Your task to perform on an android device: see creations saved in the google photos Image 0: 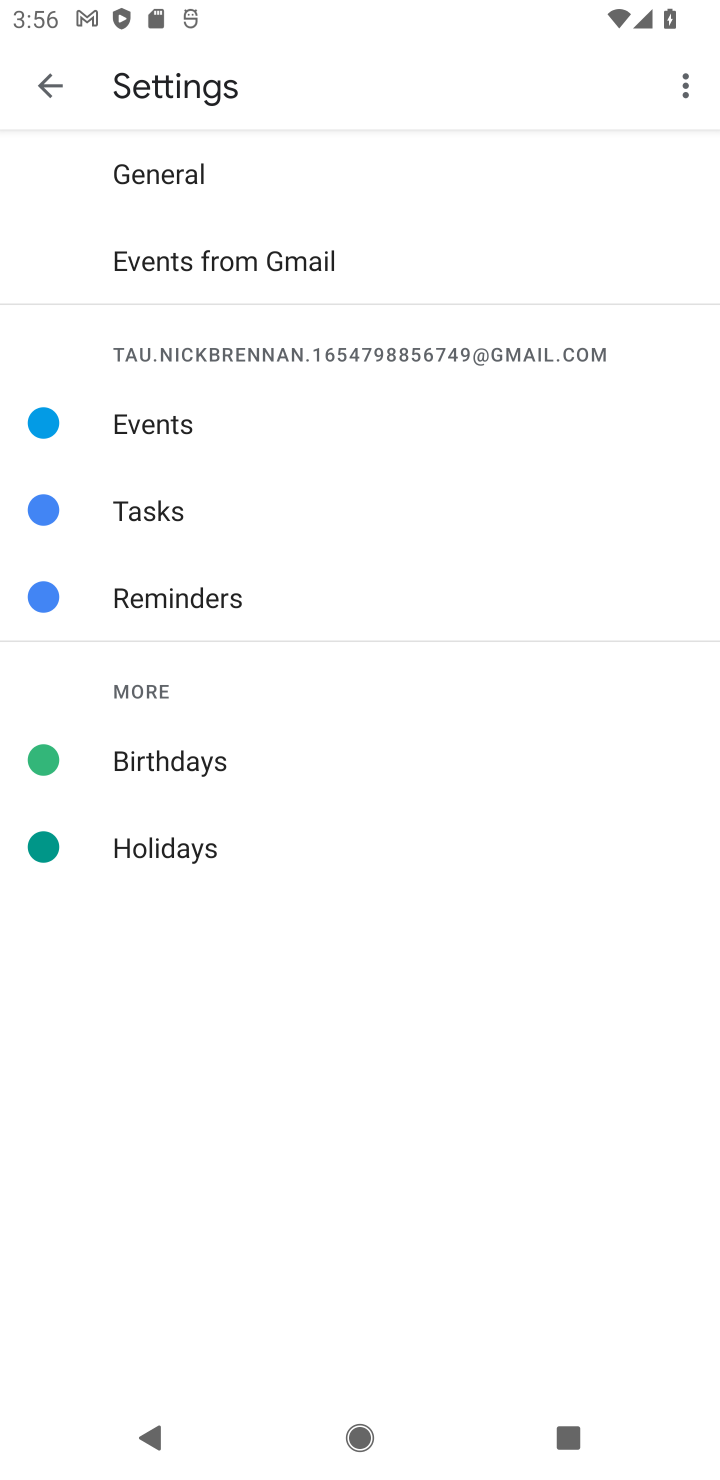
Step 0: drag from (183, 1126) to (401, 602)
Your task to perform on an android device: see creations saved in the google photos Image 1: 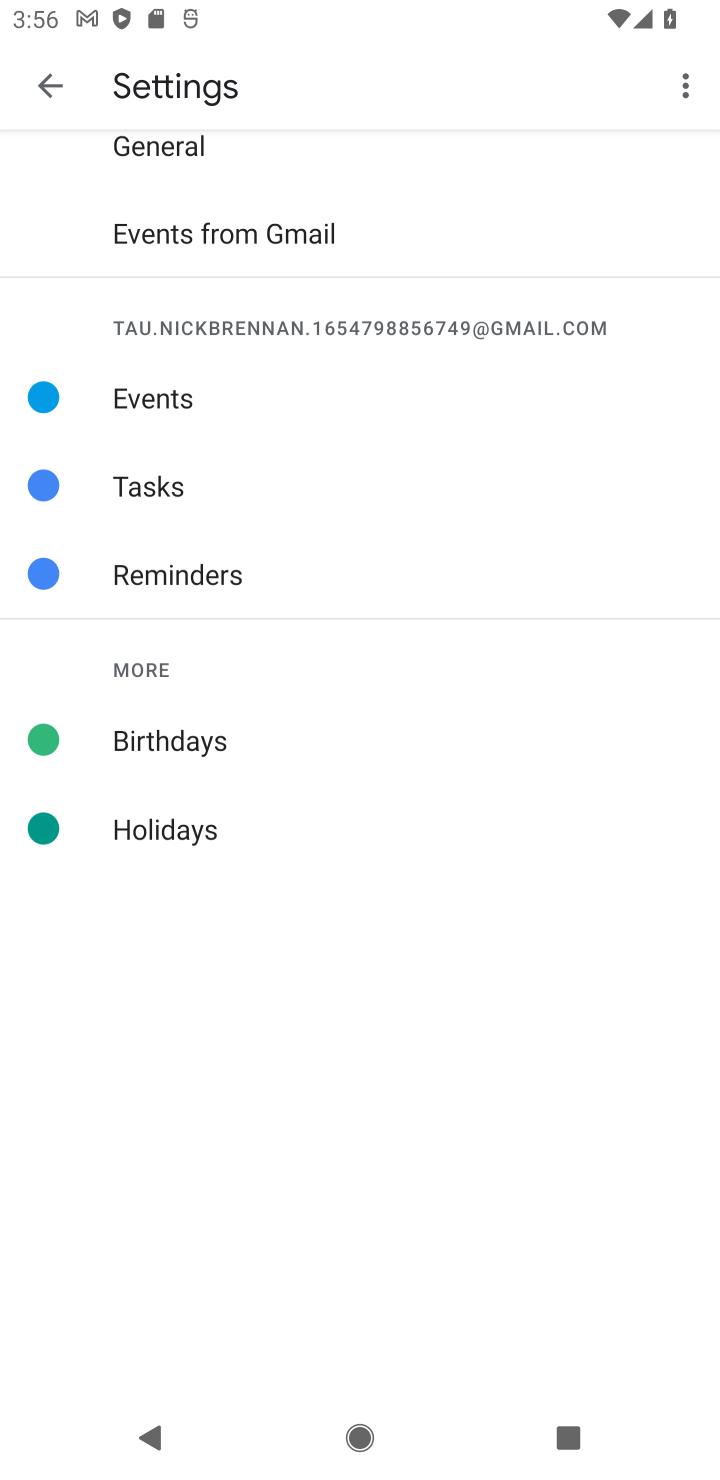
Step 1: drag from (481, 562) to (585, 1341)
Your task to perform on an android device: see creations saved in the google photos Image 2: 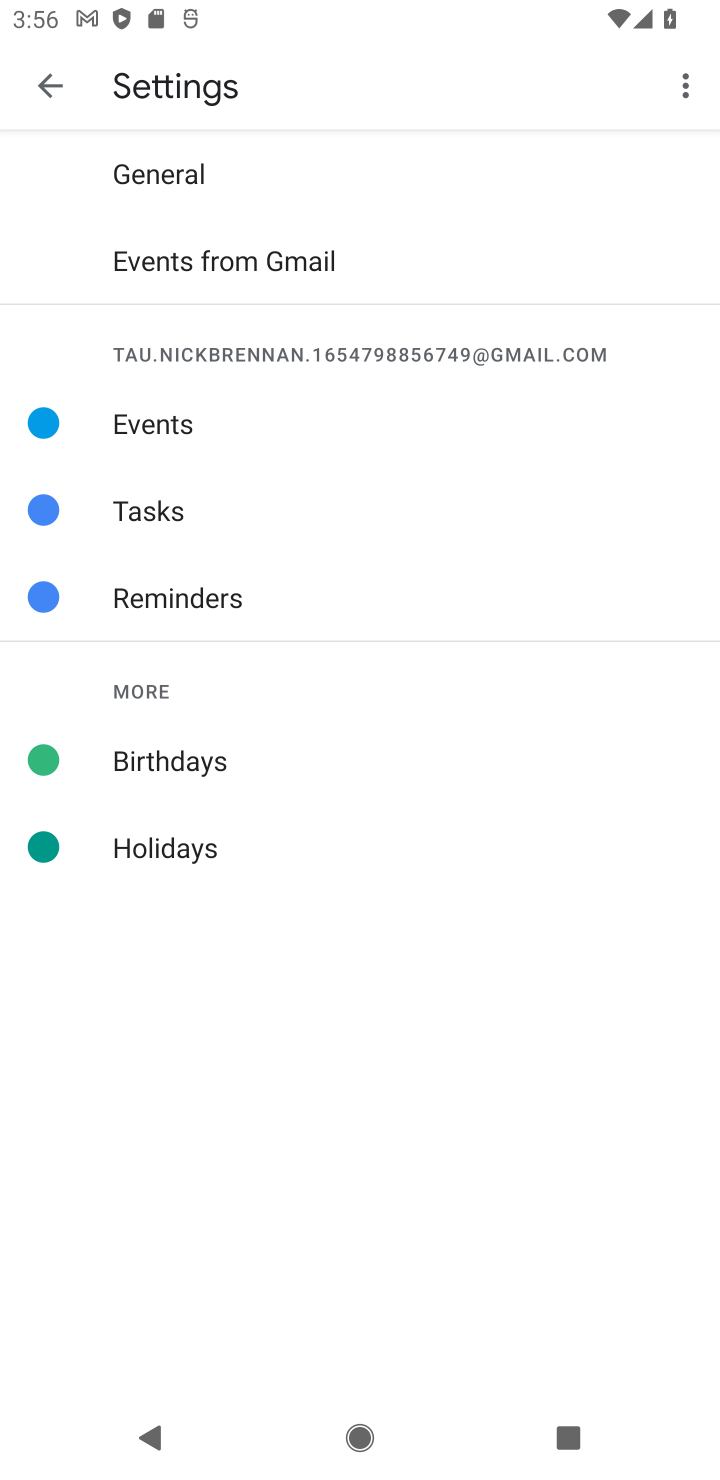
Step 2: press home button
Your task to perform on an android device: see creations saved in the google photos Image 3: 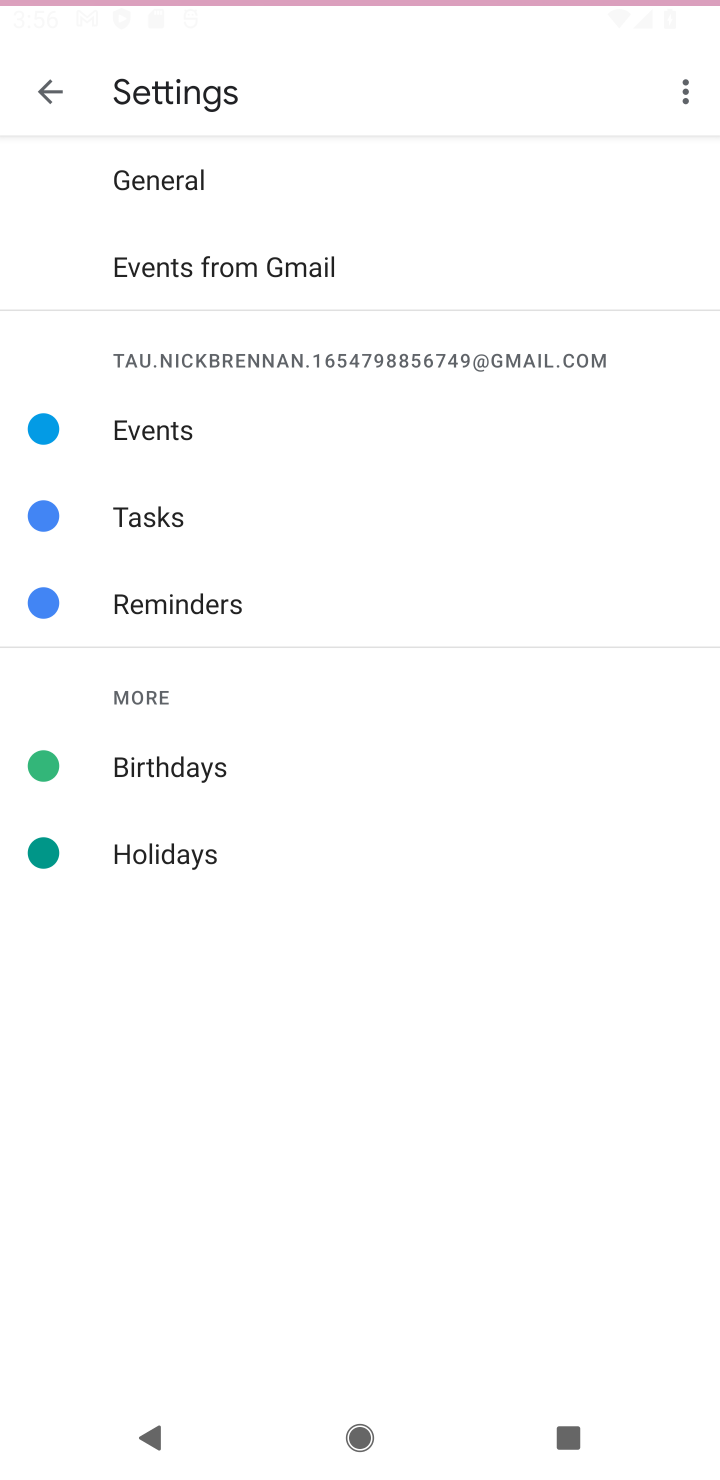
Step 3: drag from (289, 1056) to (532, 115)
Your task to perform on an android device: see creations saved in the google photos Image 4: 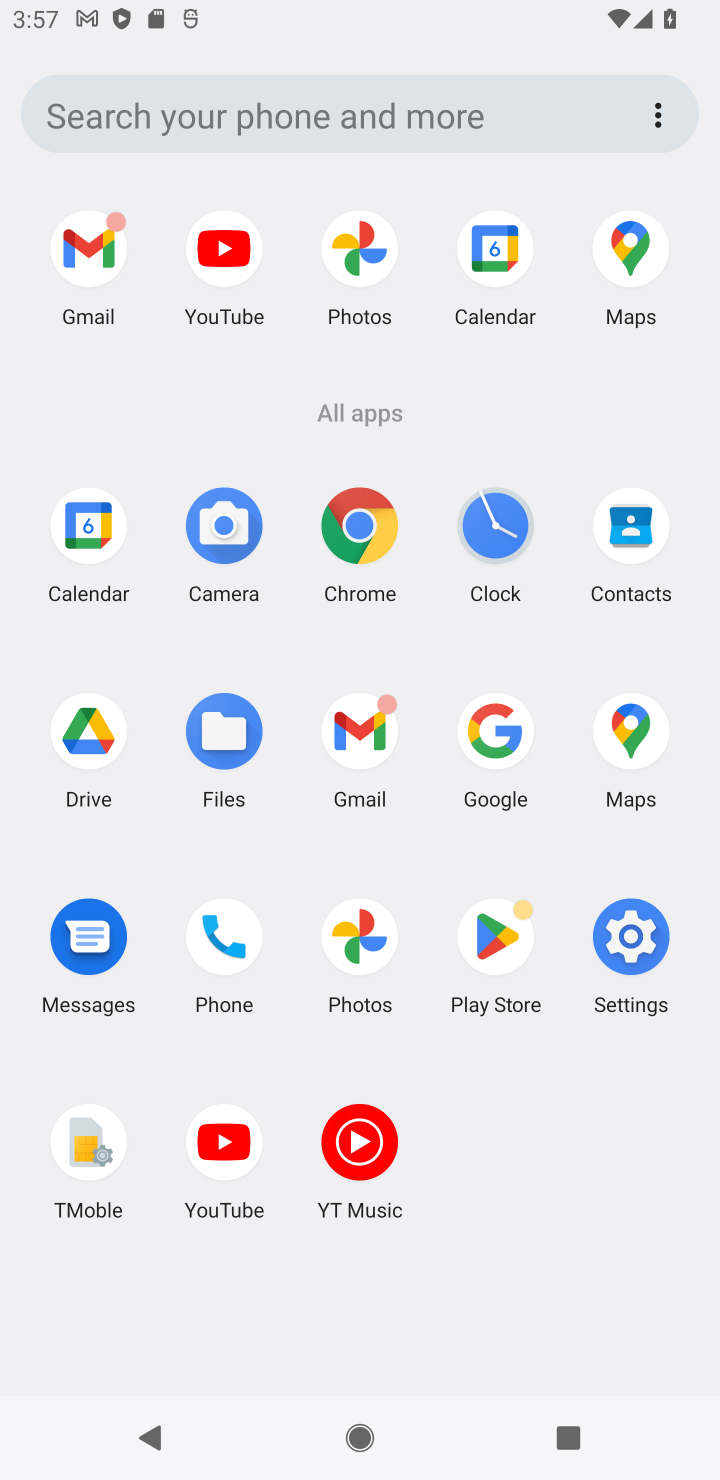
Step 4: click (360, 949)
Your task to perform on an android device: see creations saved in the google photos Image 5: 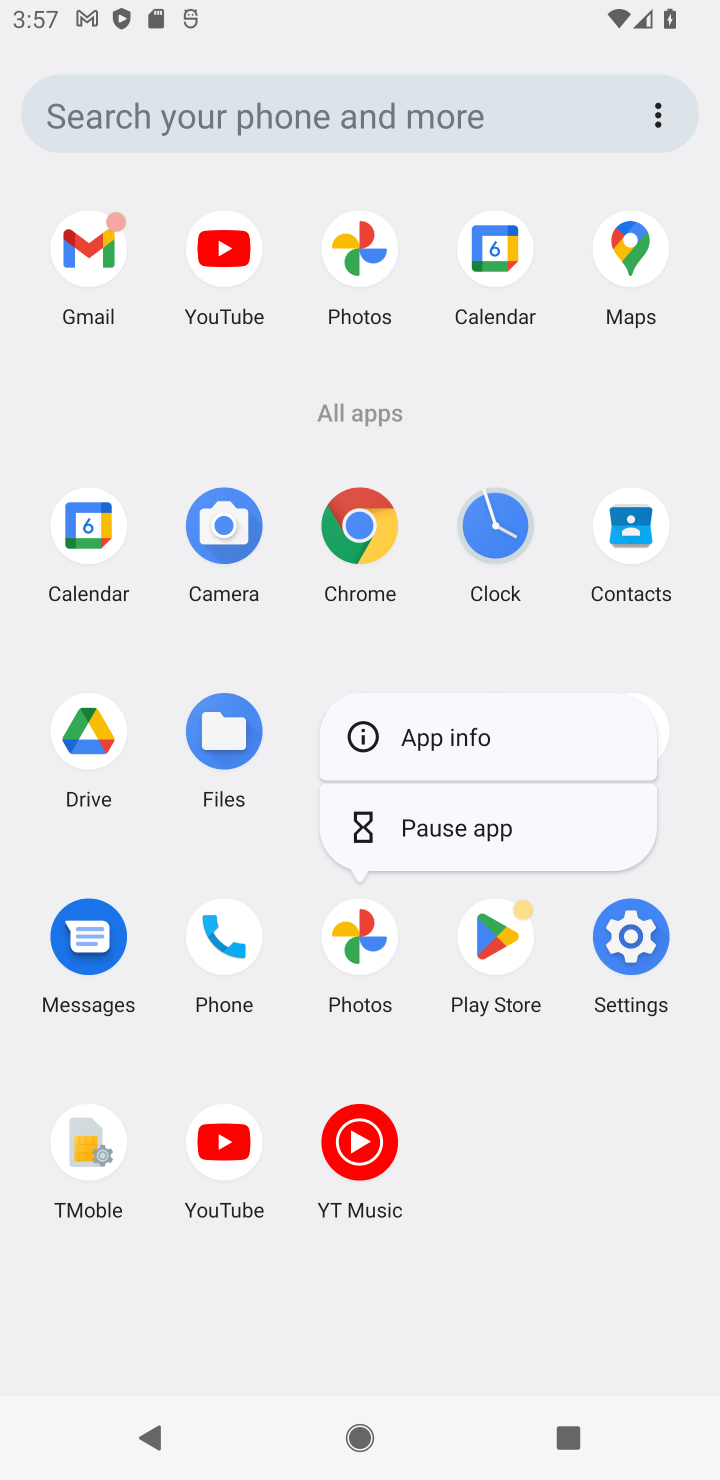
Step 5: click (429, 754)
Your task to perform on an android device: see creations saved in the google photos Image 6: 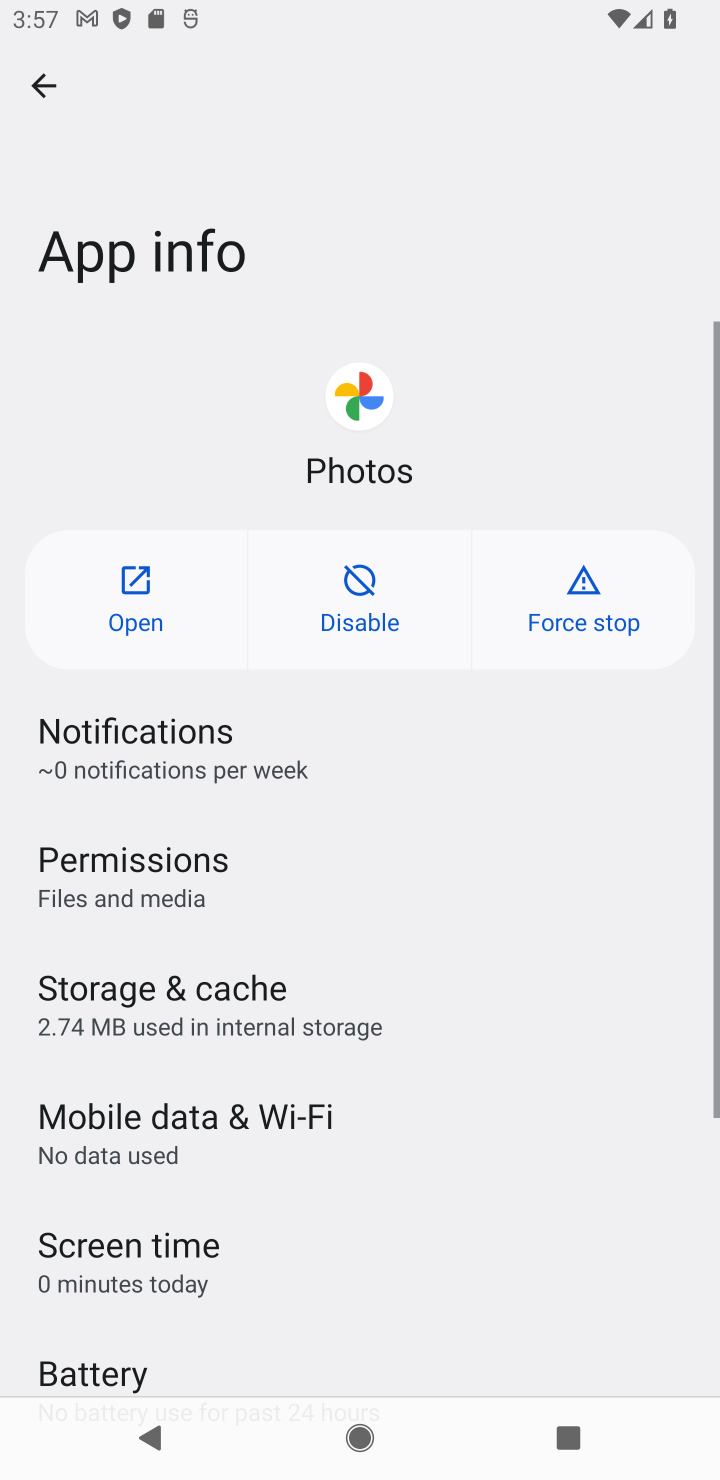
Step 6: click (126, 597)
Your task to perform on an android device: see creations saved in the google photos Image 7: 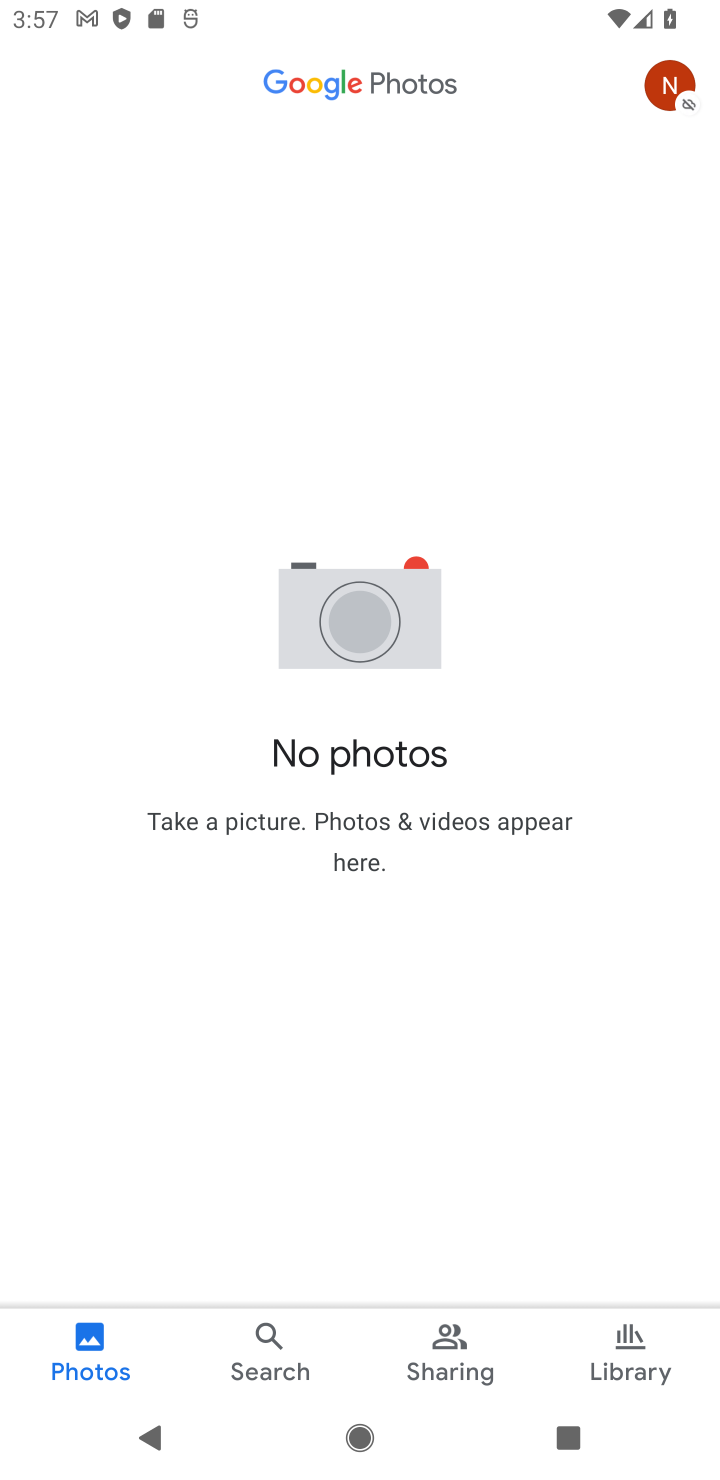
Step 7: click (435, 682)
Your task to perform on an android device: see creations saved in the google photos Image 8: 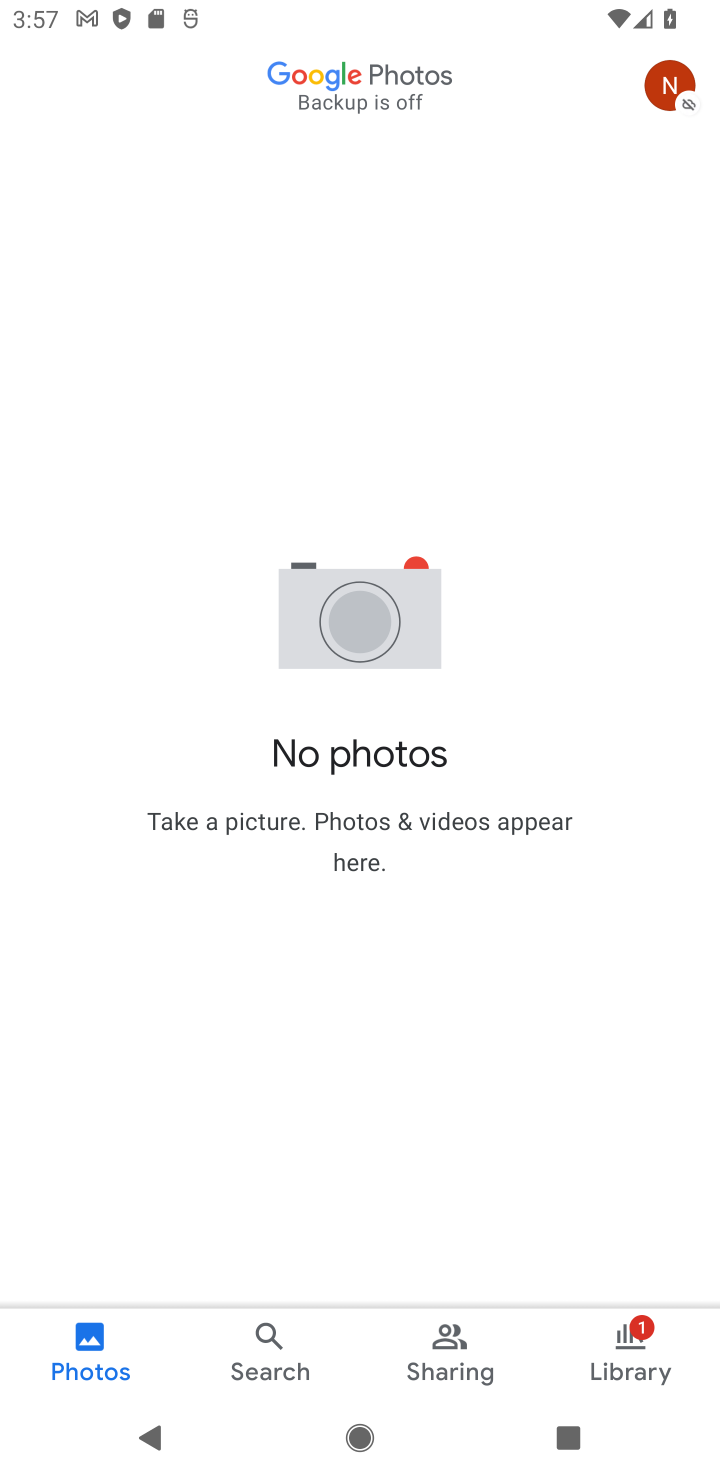
Step 8: drag from (448, 1191) to (577, 737)
Your task to perform on an android device: see creations saved in the google photos Image 9: 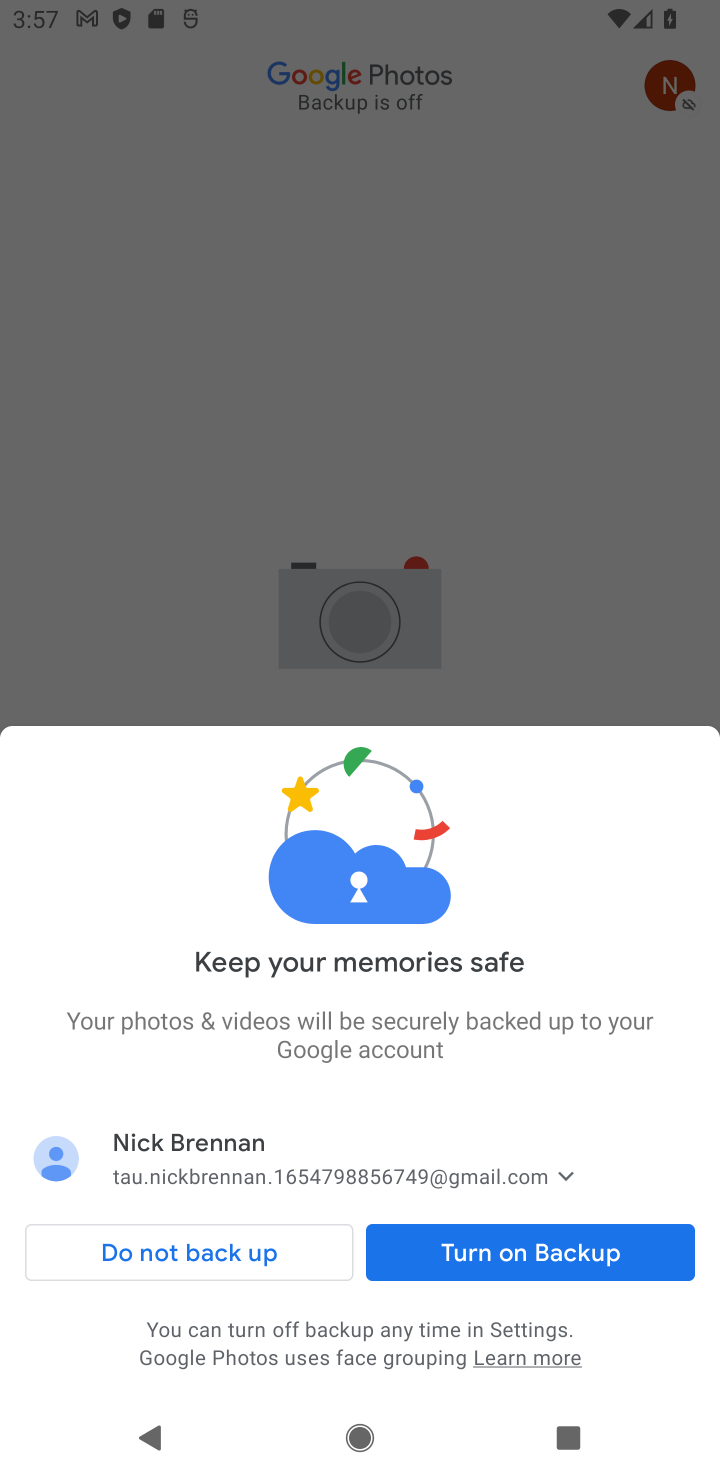
Step 9: drag from (427, 807) to (455, 682)
Your task to perform on an android device: see creations saved in the google photos Image 10: 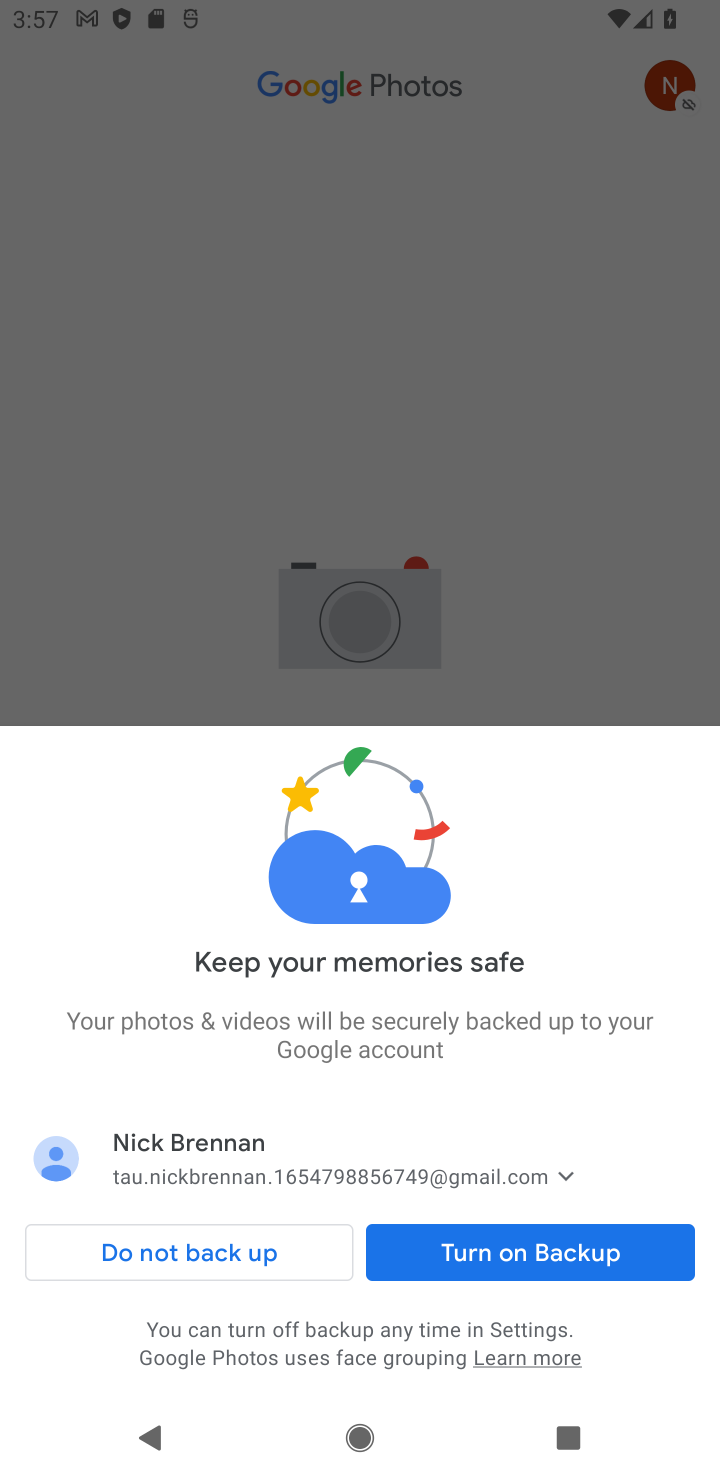
Step 10: click (534, 1252)
Your task to perform on an android device: see creations saved in the google photos Image 11: 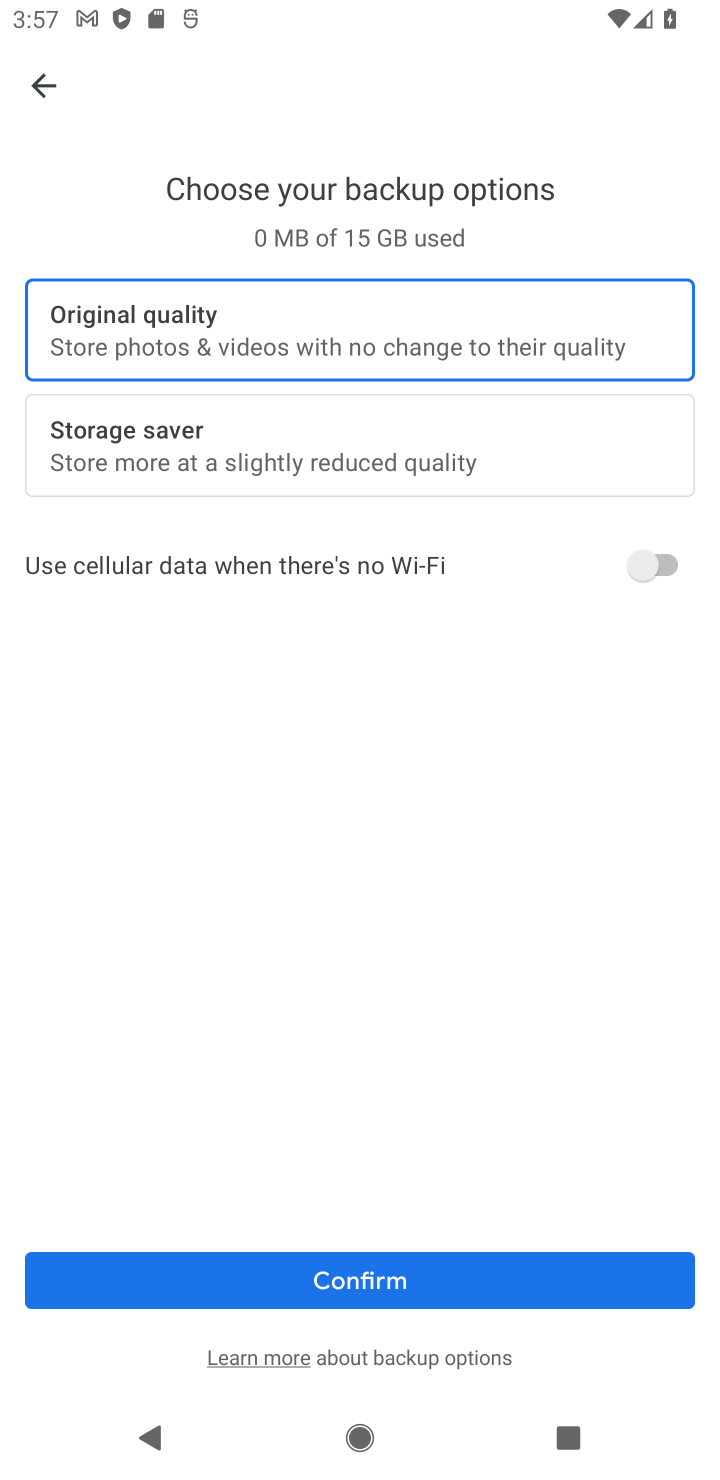
Step 11: click (380, 348)
Your task to perform on an android device: see creations saved in the google photos Image 12: 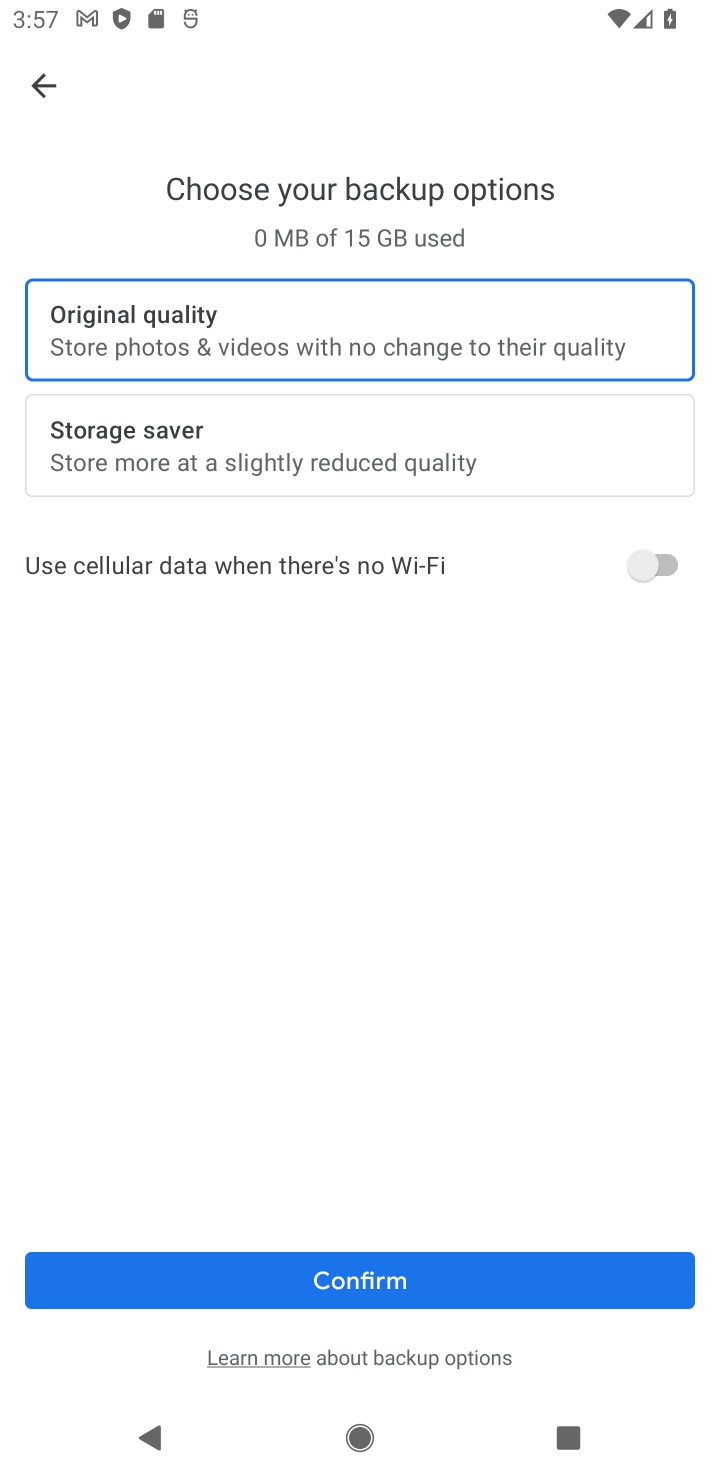
Step 12: click (43, 113)
Your task to perform on an android device: see creations saved in the google photos Image 13: 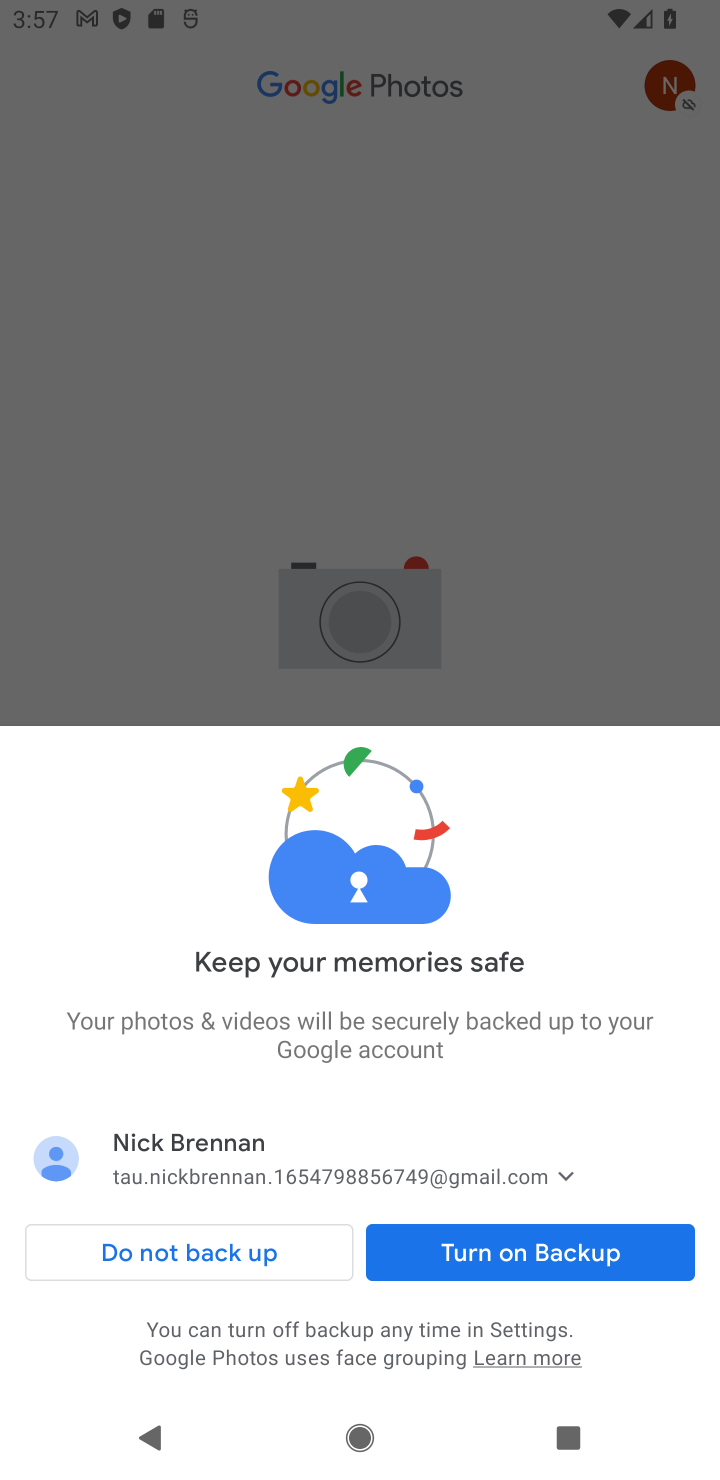
Step 13: click (415, 615)
Your task to perform on an android device: see creations saved in the google photos Image 14: 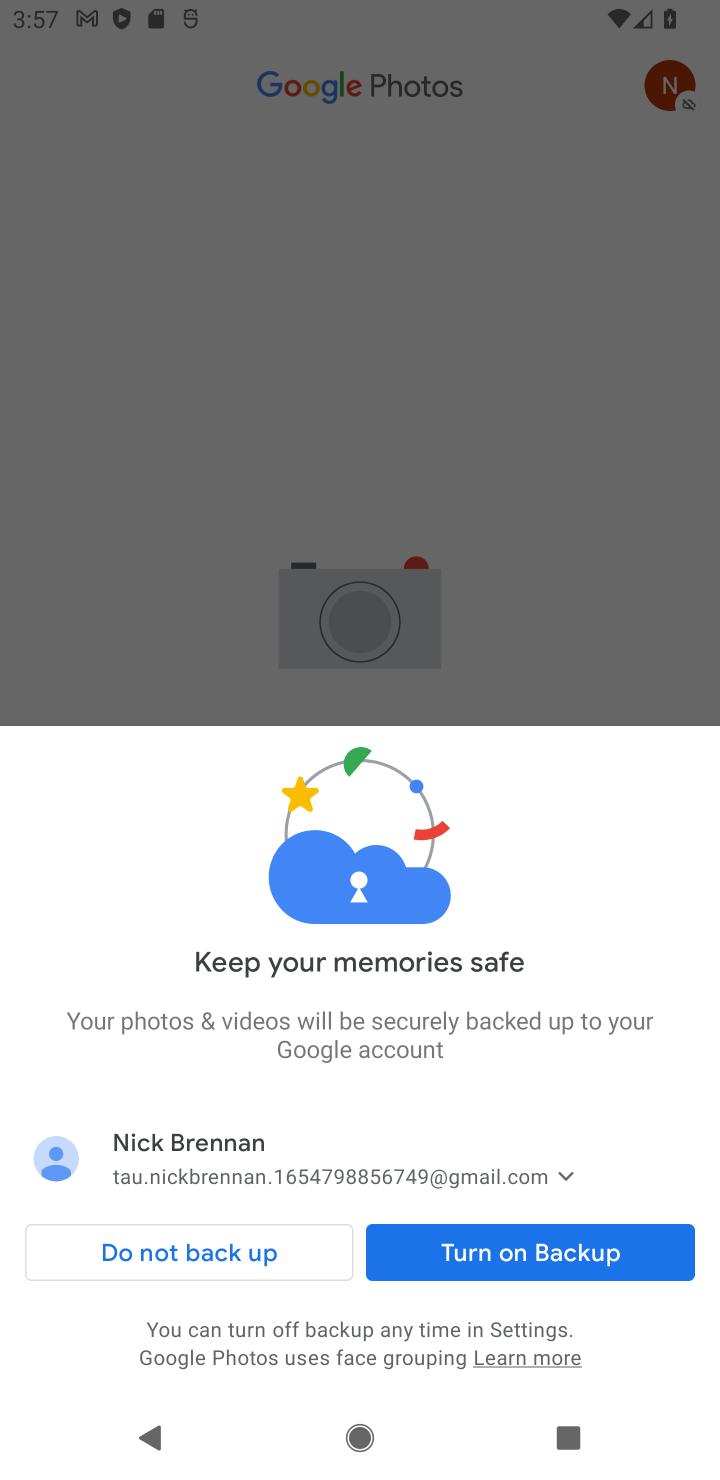
Step 14: click (503, 1257)
Your task to perform on an android device: see creations saved in the google photos Image 15: 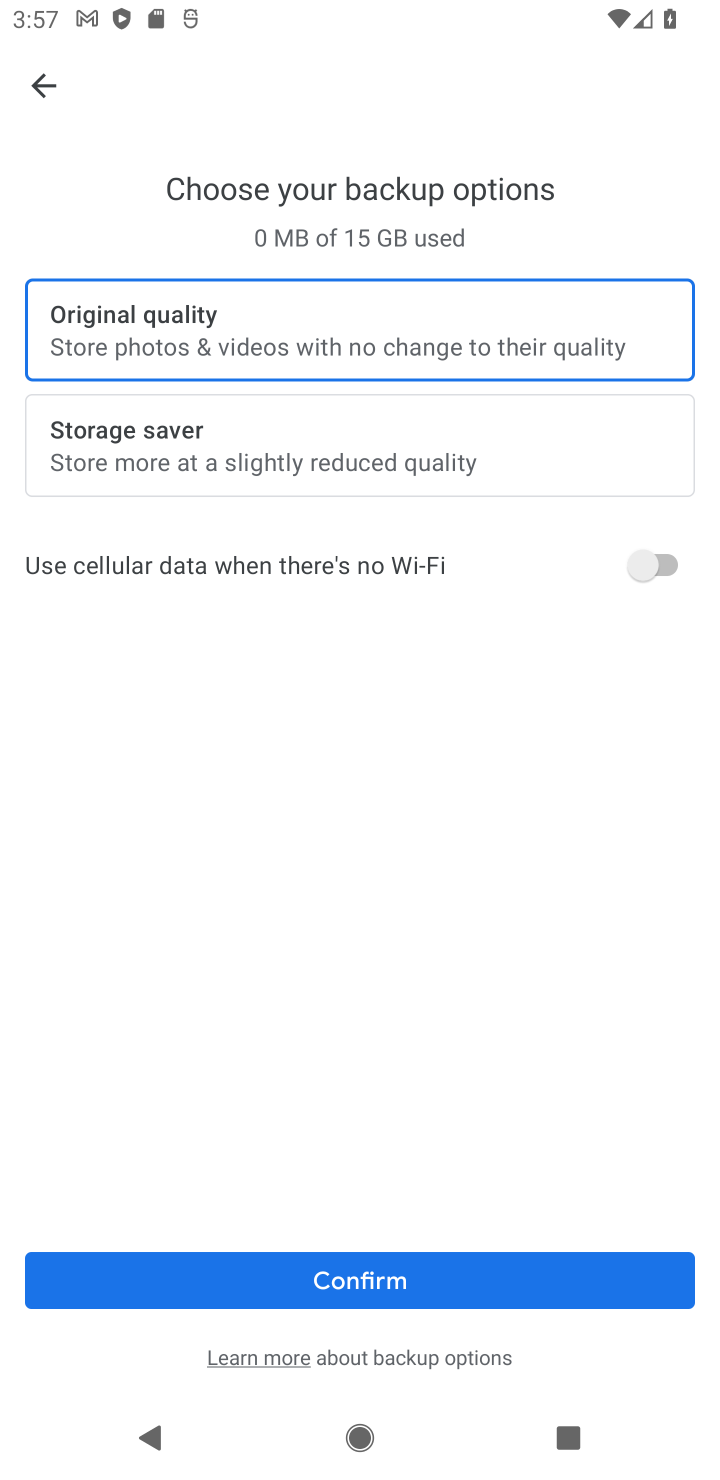
Step 15: click (432, 1262)
Your task to perform on an android device: see creations saved in the google photos Image 16: 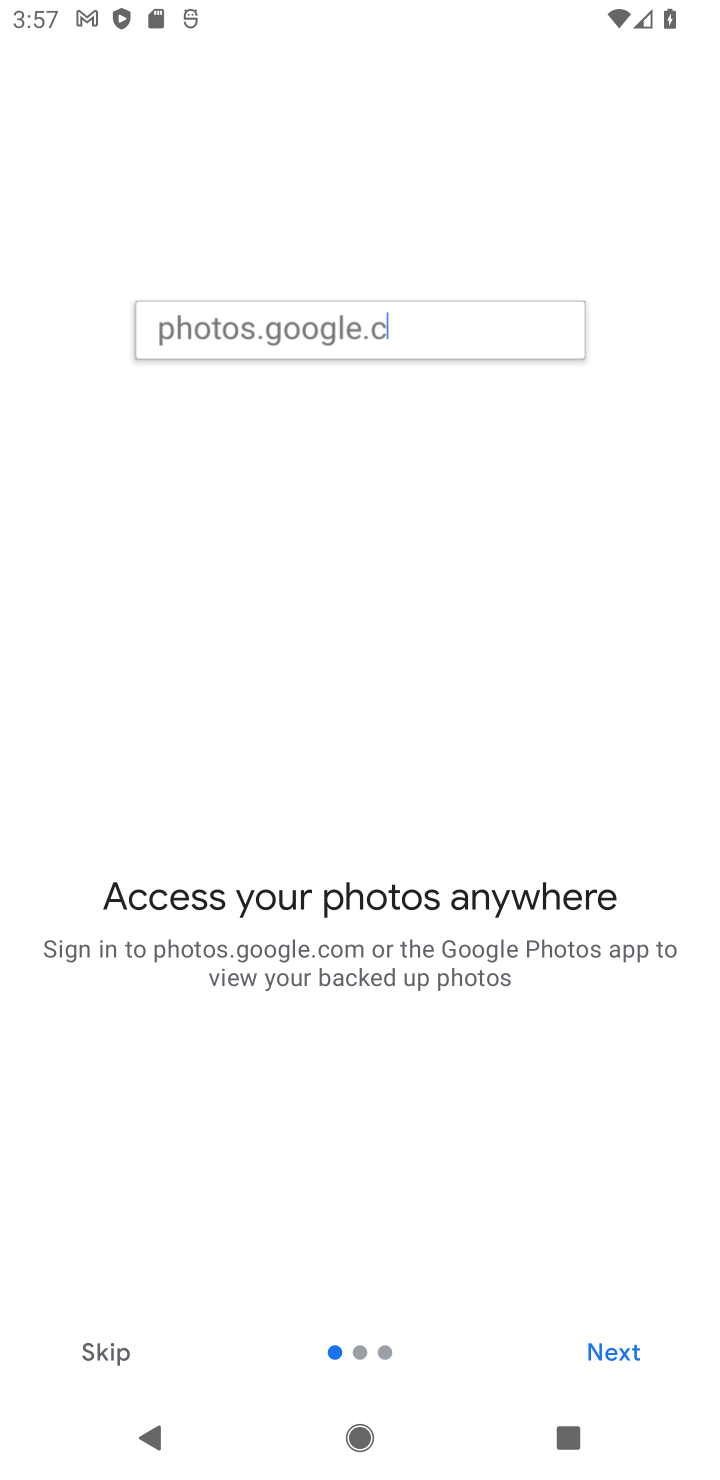
Step 16: click (106, 1357)
Your task to perform on an android device: see creations saved in the google photos Image 17: 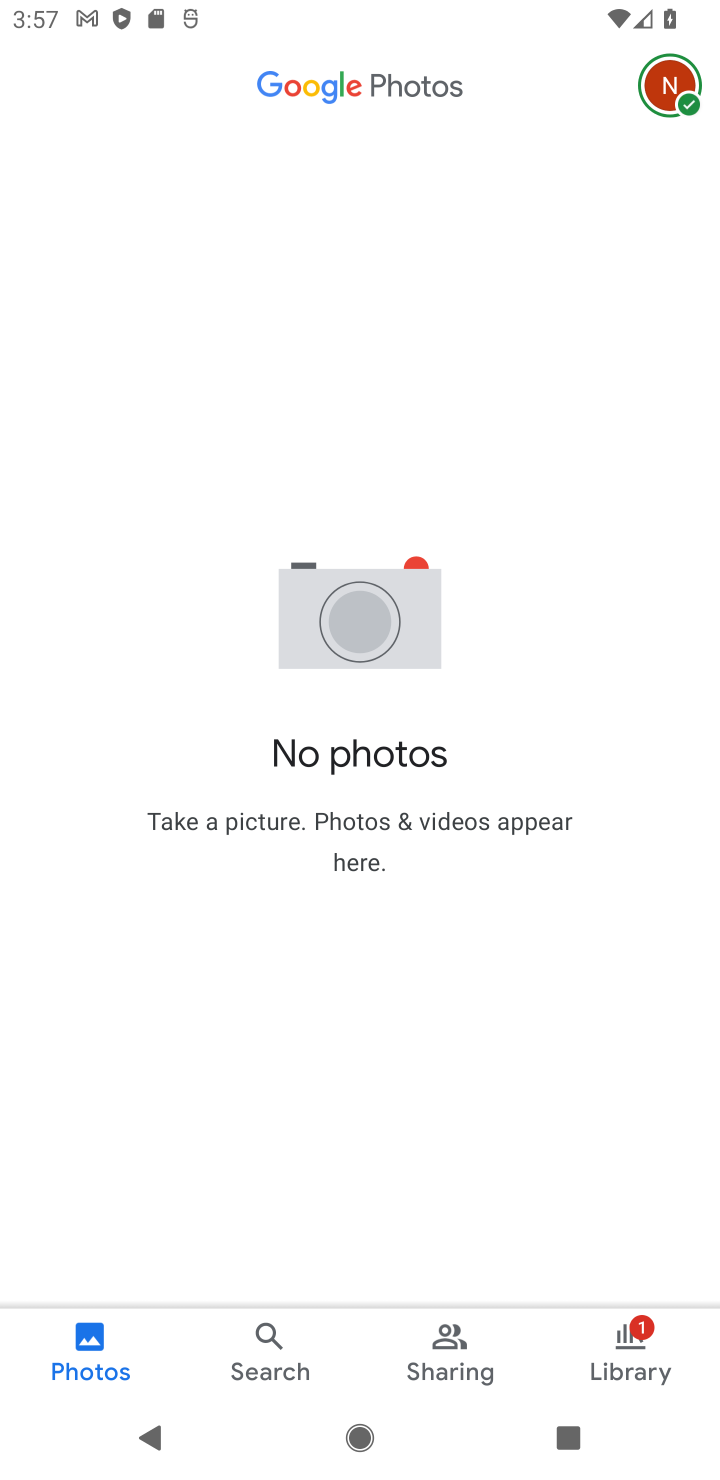
Step 17: click (267, 1353)
Your task to perform on an android device: see creations saved in the google photos Image 18: 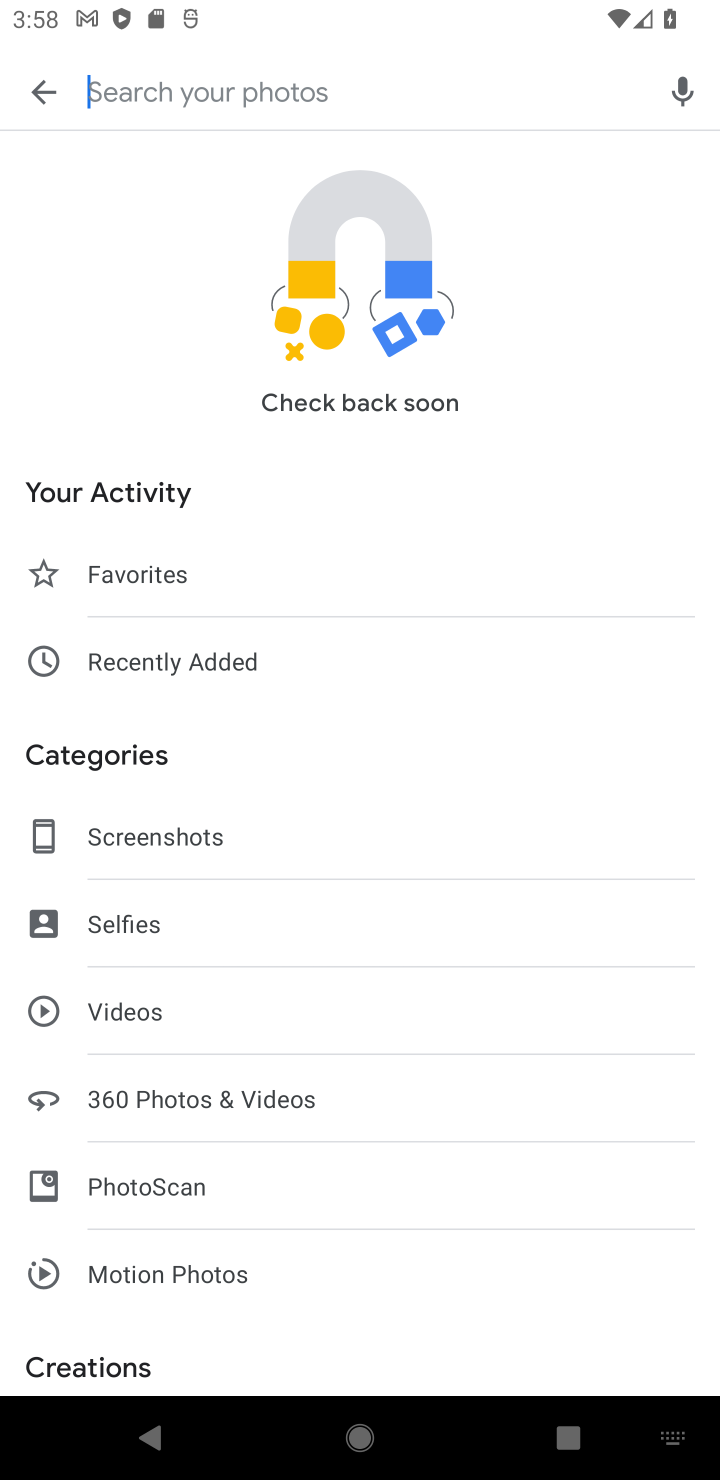
Step 18: drag from (337, 1200) to (457, 346)
Your task to perform on an android device: see creations saved in the google photos Image 19: 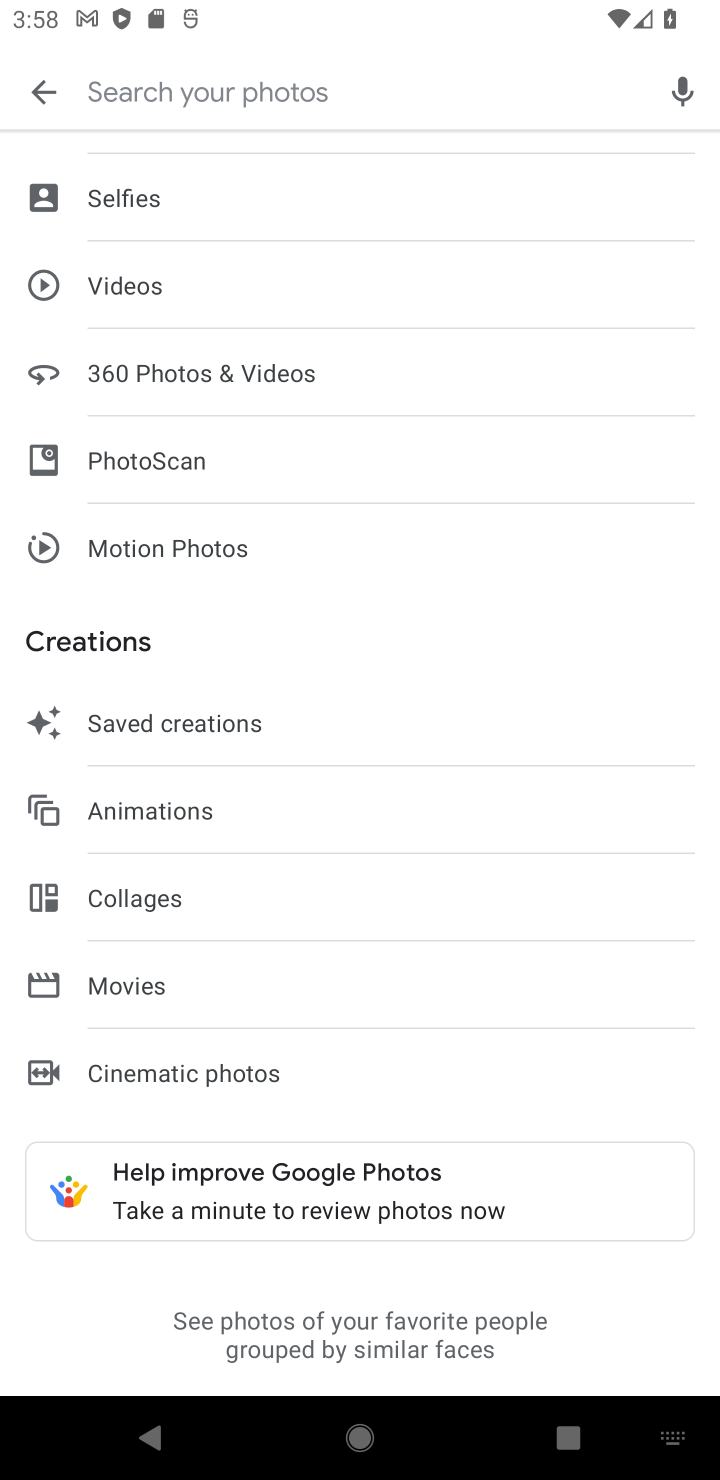
Step 19: click (153, 718)
Your task to perform on an android device: see creations saved in the google photos Image 20: 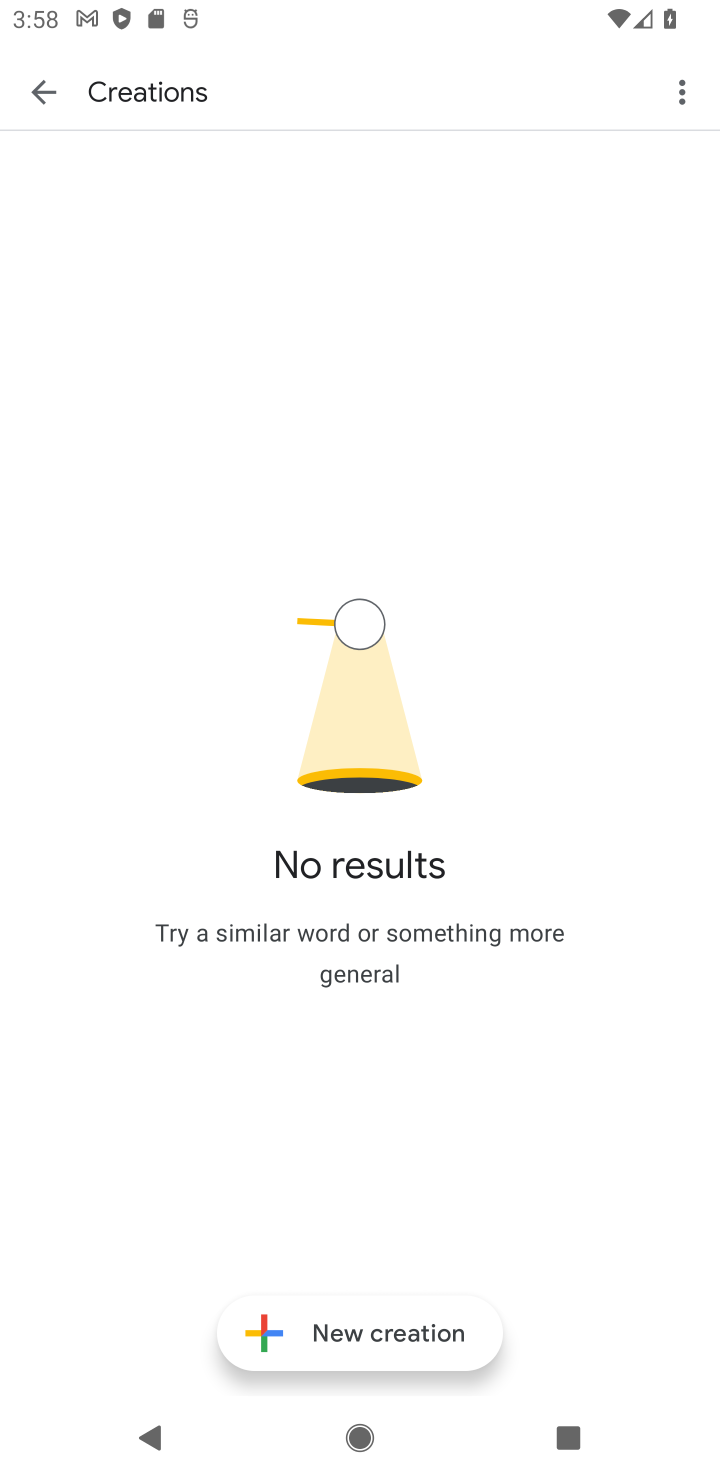
Step 20: click (467, 960)
Your task to perform on an android device: see creations saved in the google photos Image 21: 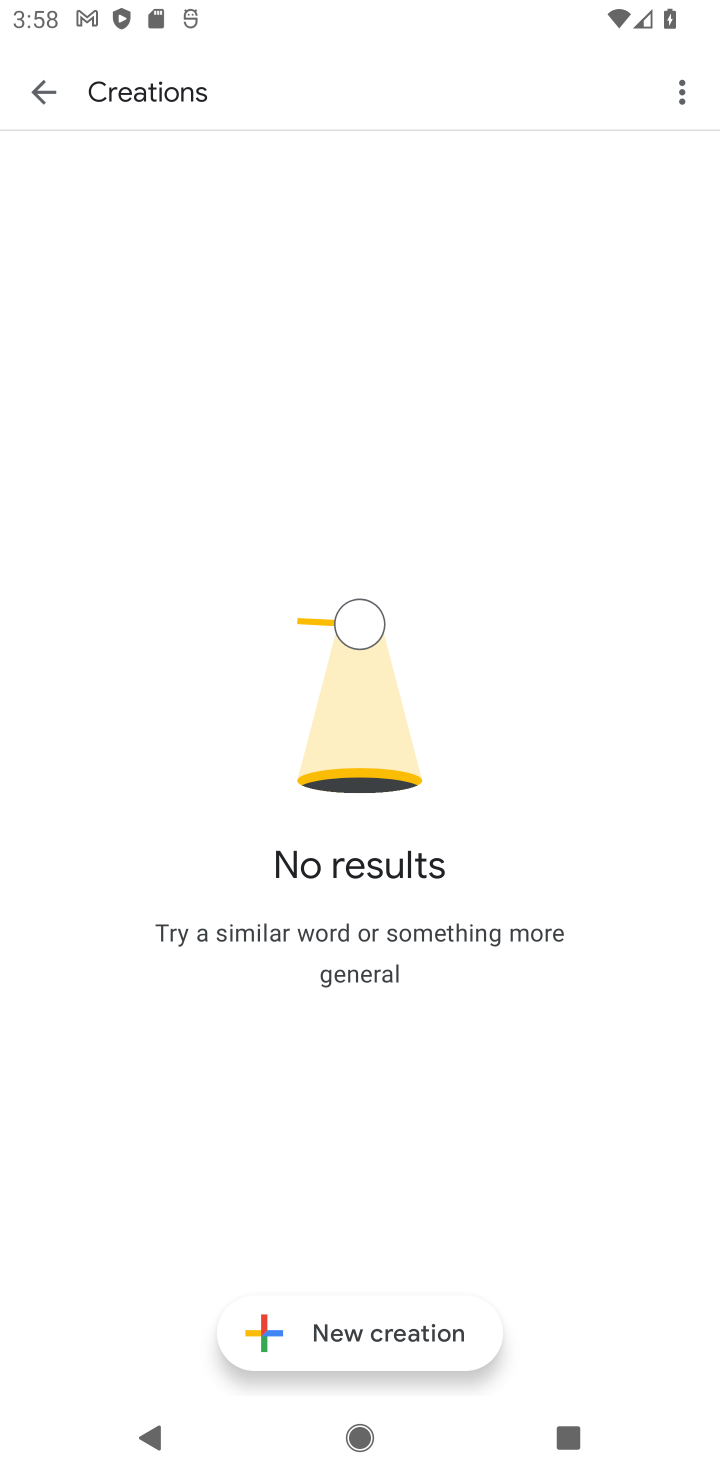
Step 21: task complete